Your task to perform on an android device: Search for the new nike air max 270 on Nike.com Image 0: 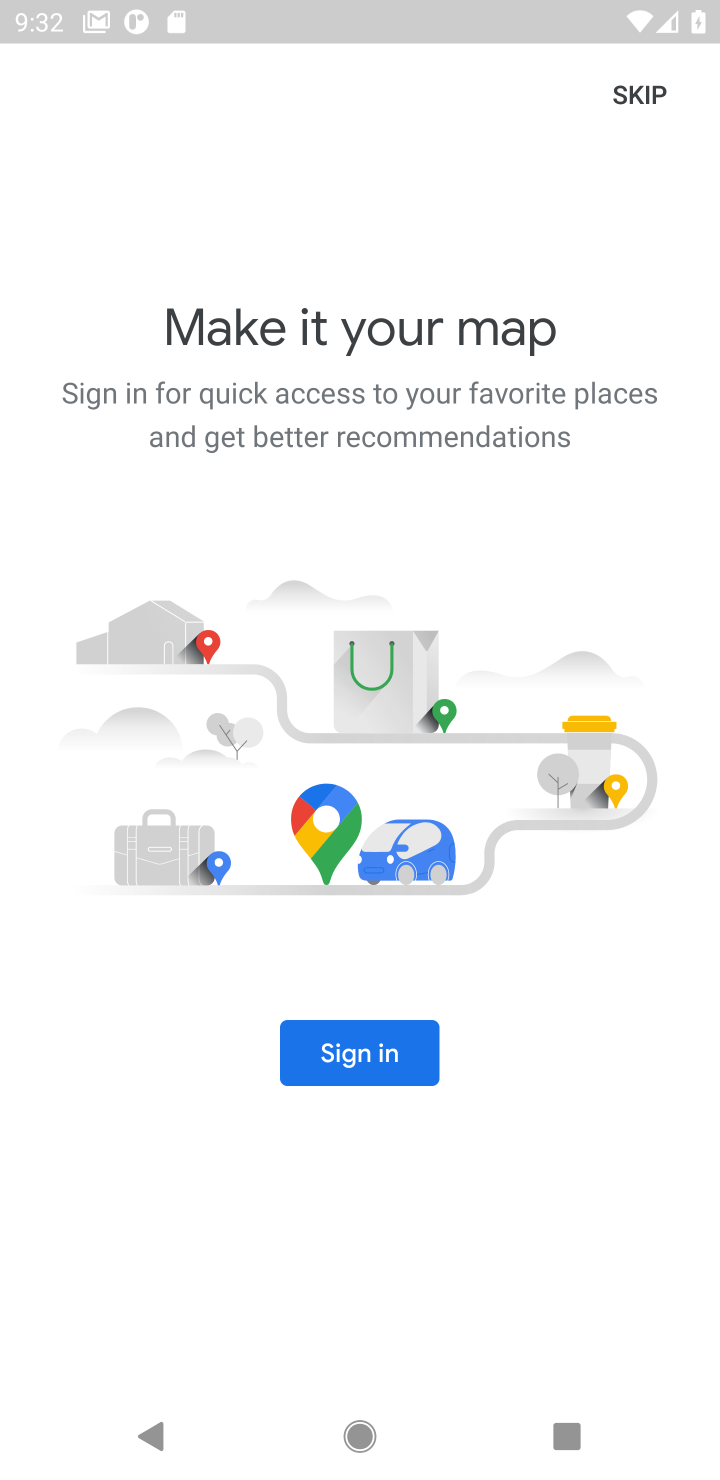
Step 0: press home button
Your task to perform on an android device: Search for the new nike air max 270 on Nike.com Image 1: 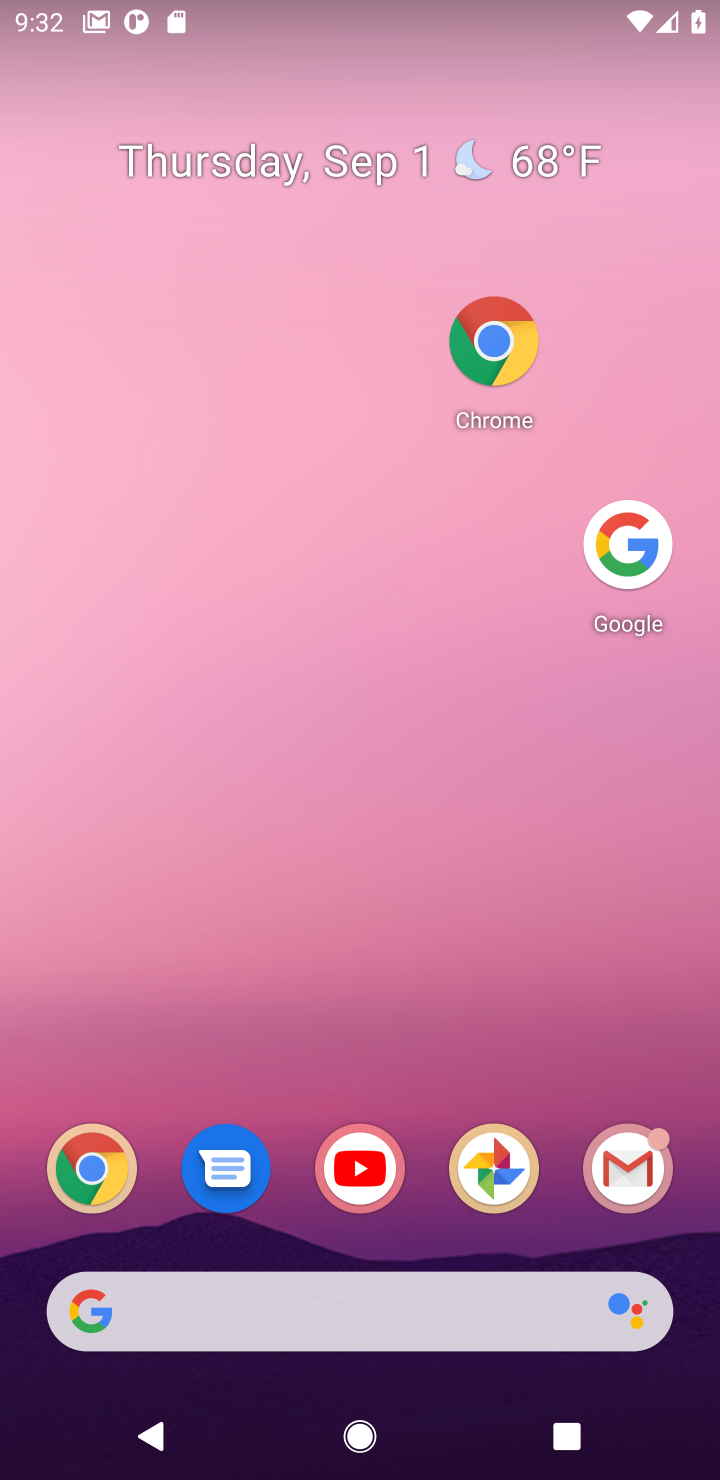
Step 1: drag from (337, 857) to (376, 440)
Your task to perform on an android device: Search for the new nike air max 270 on Nike.com Image 2: 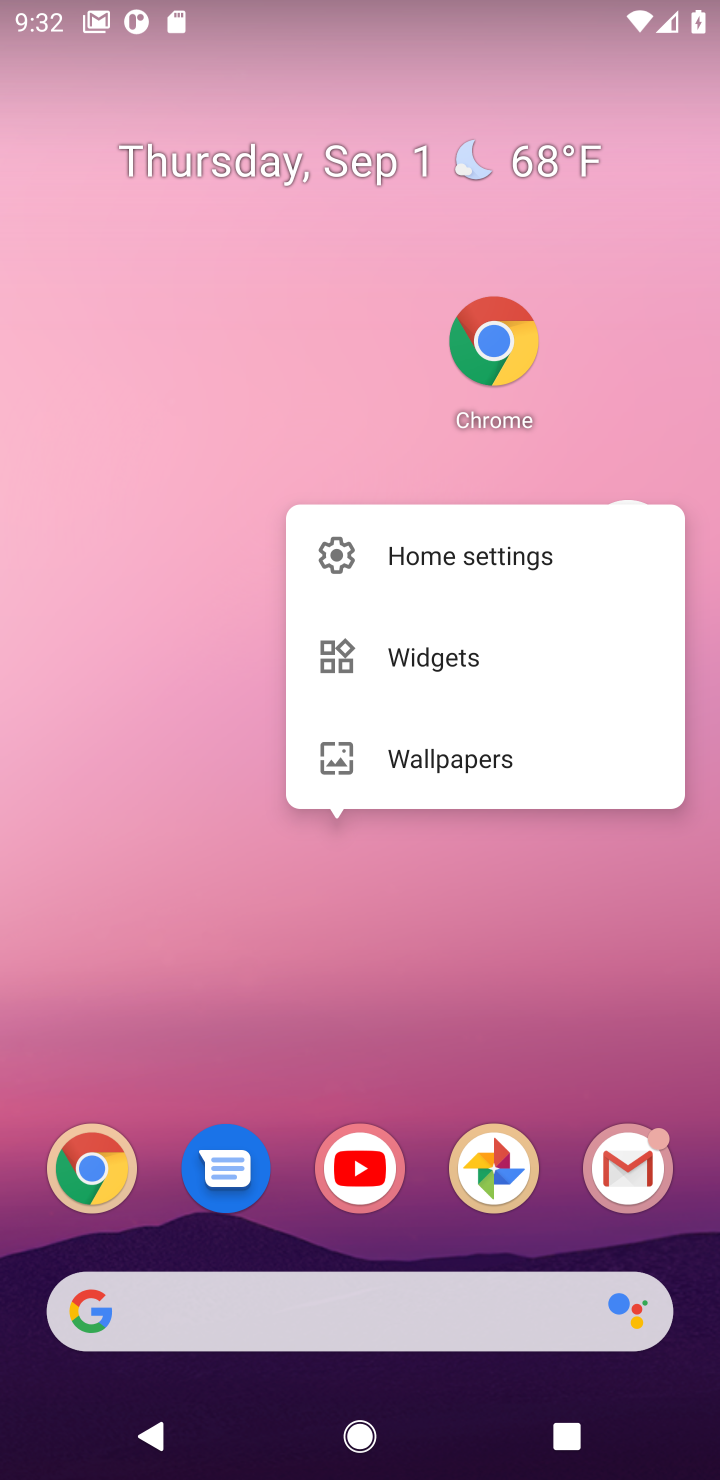
Step 2: click (6, 819)
Your task to perform on an android device: Search for the new nike air max 270 on Nike.com Image 3: 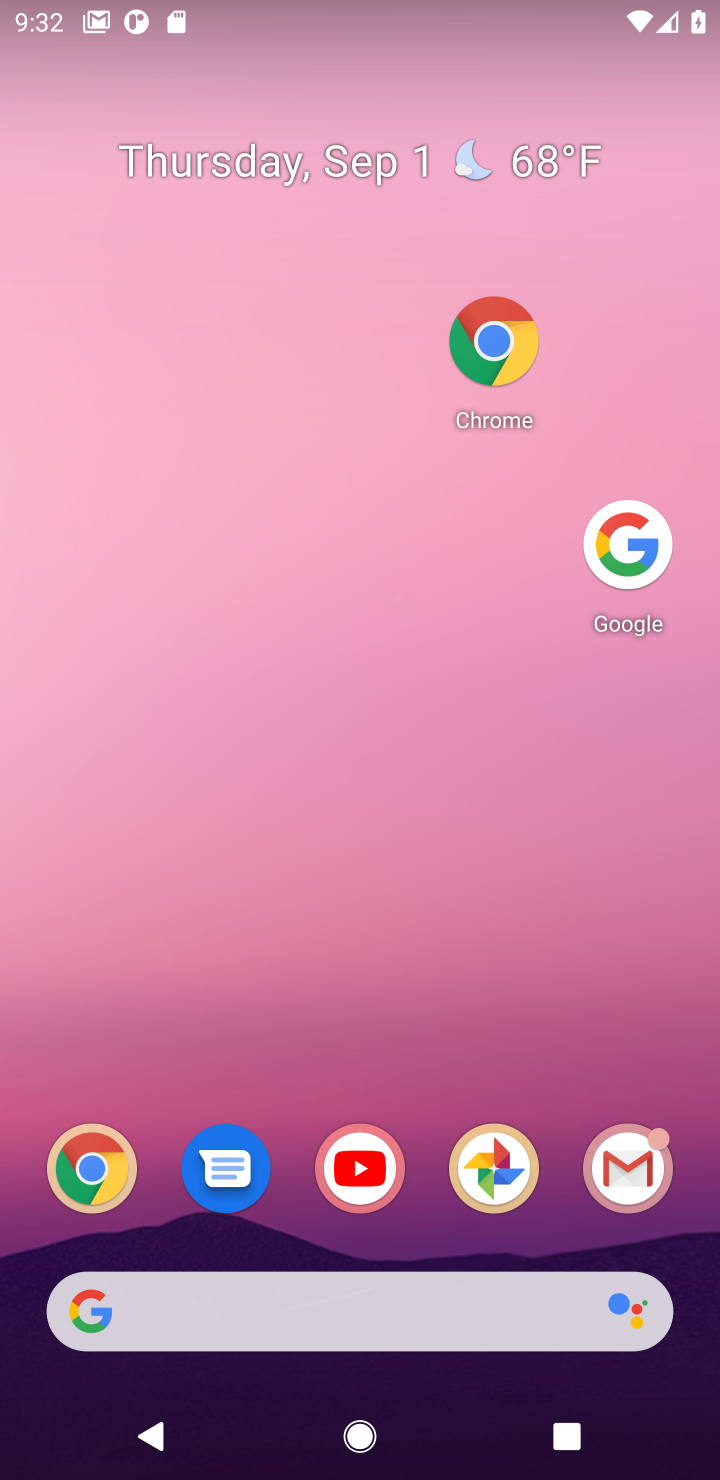
Step 3: drag from (283, 747) to (283, 346)
Your task to perform on an android device: Search for the new nike air max 270 on Nike.com Image 4: 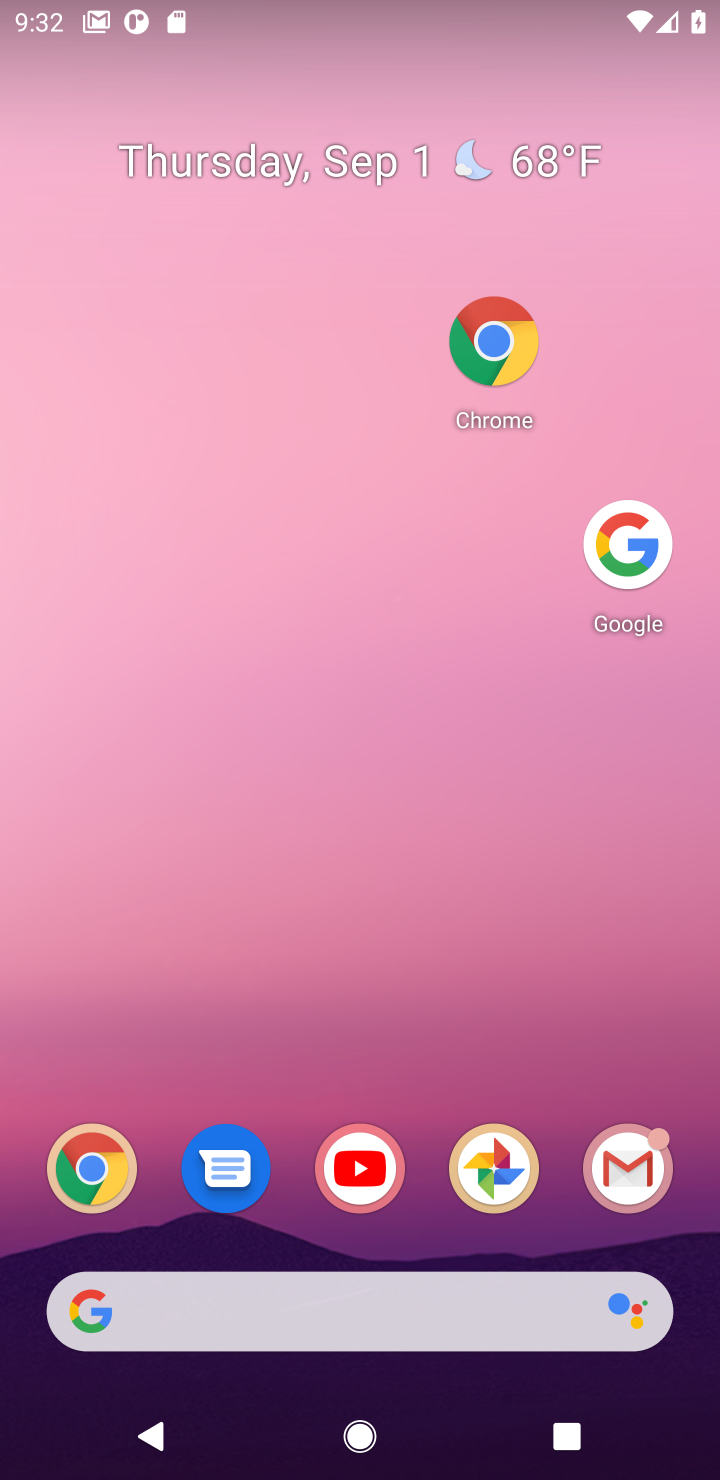
Step 4: drag from (393, 1059) to (436, 412)
Your task to perform on an android device: Search for the new nike air max 270 on Nike.com Image 5: 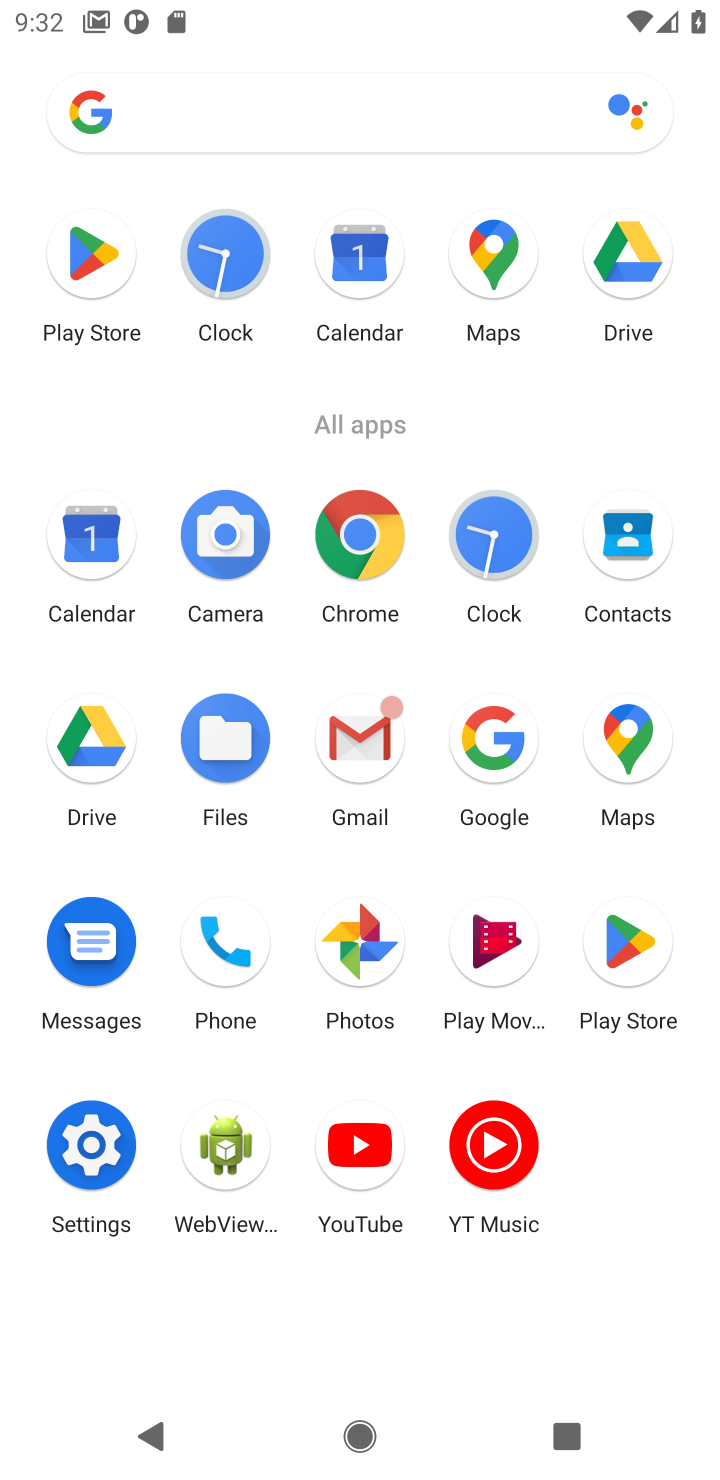
Step 5: click (494, 726)
Your task to perform on an android device: Search for the new nike air max 270 on Nike.com Image 6: 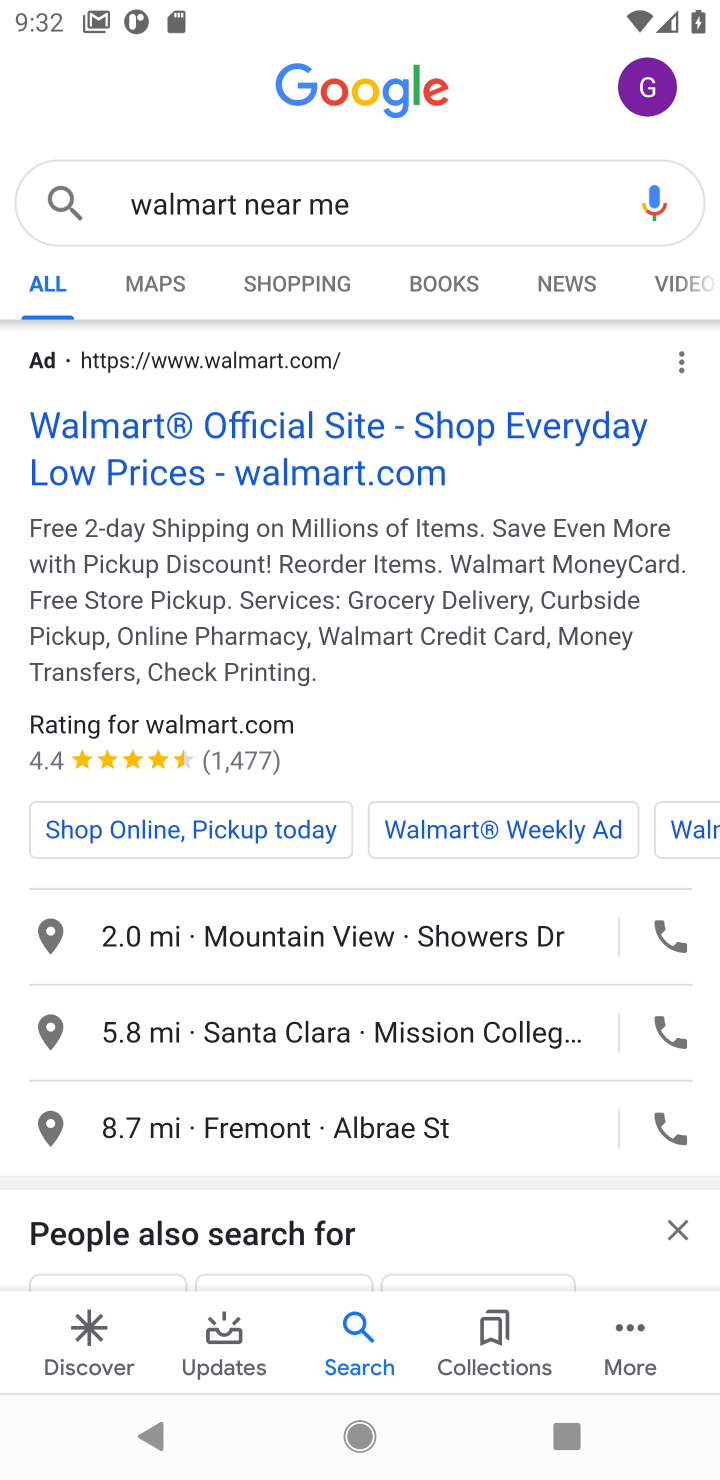
Step 6: click (389, 196)
Your task to perform on an android device: Search for the new nike air max 270 on Nike.com Image 7: 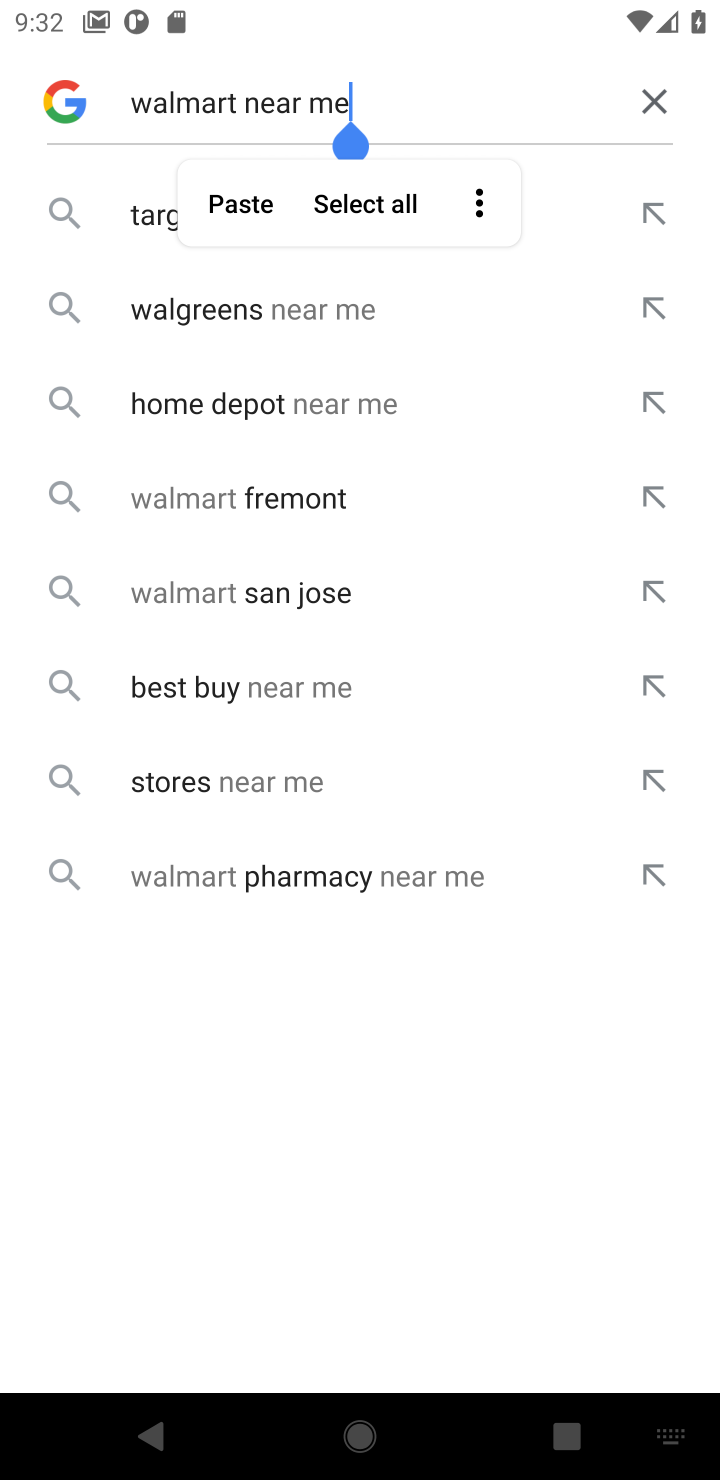
Step 7: click (652, 102)
Your task to perform on an android device: Search for the new nike air max 270 on Nike.com Image 8: 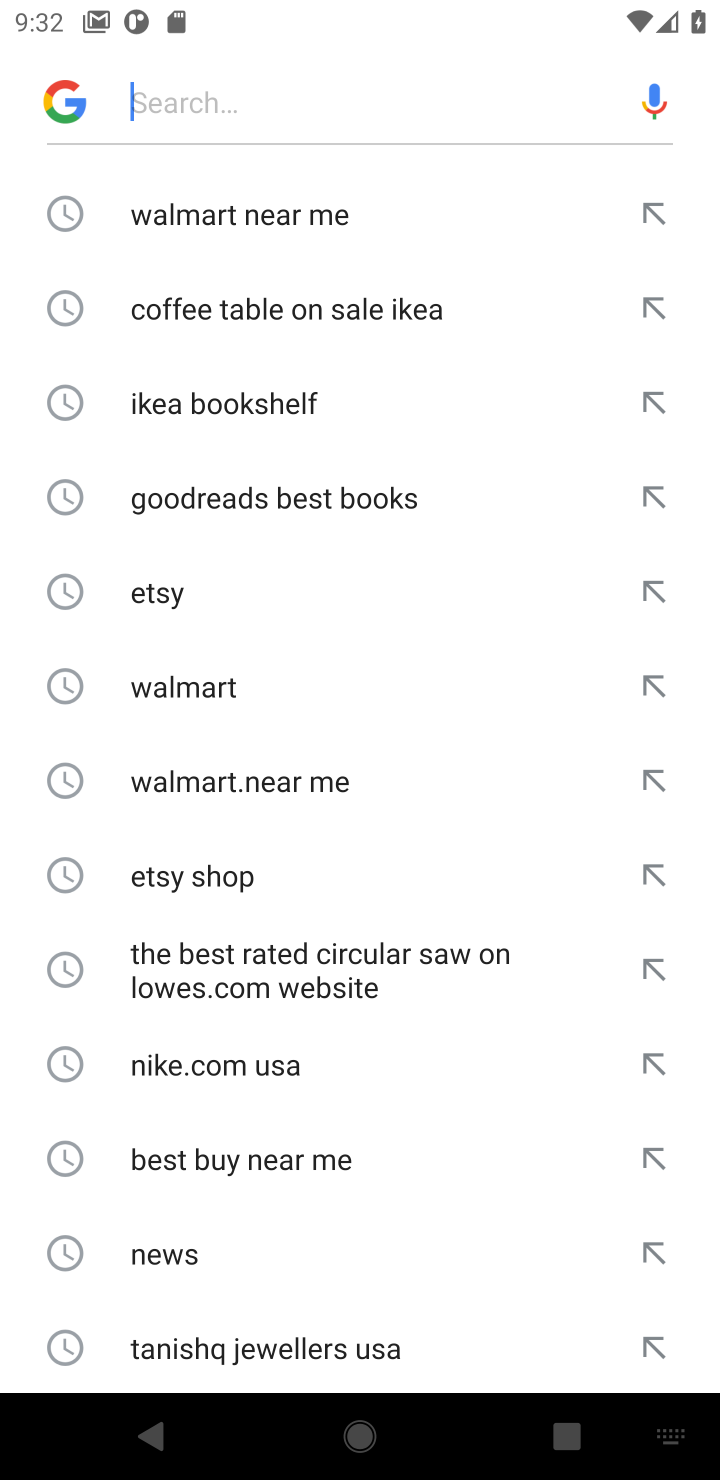
Step 8: click (307, 67)
Your task to perform on an android device: Search for the new nike air max 270 on Nike.com Image 9: 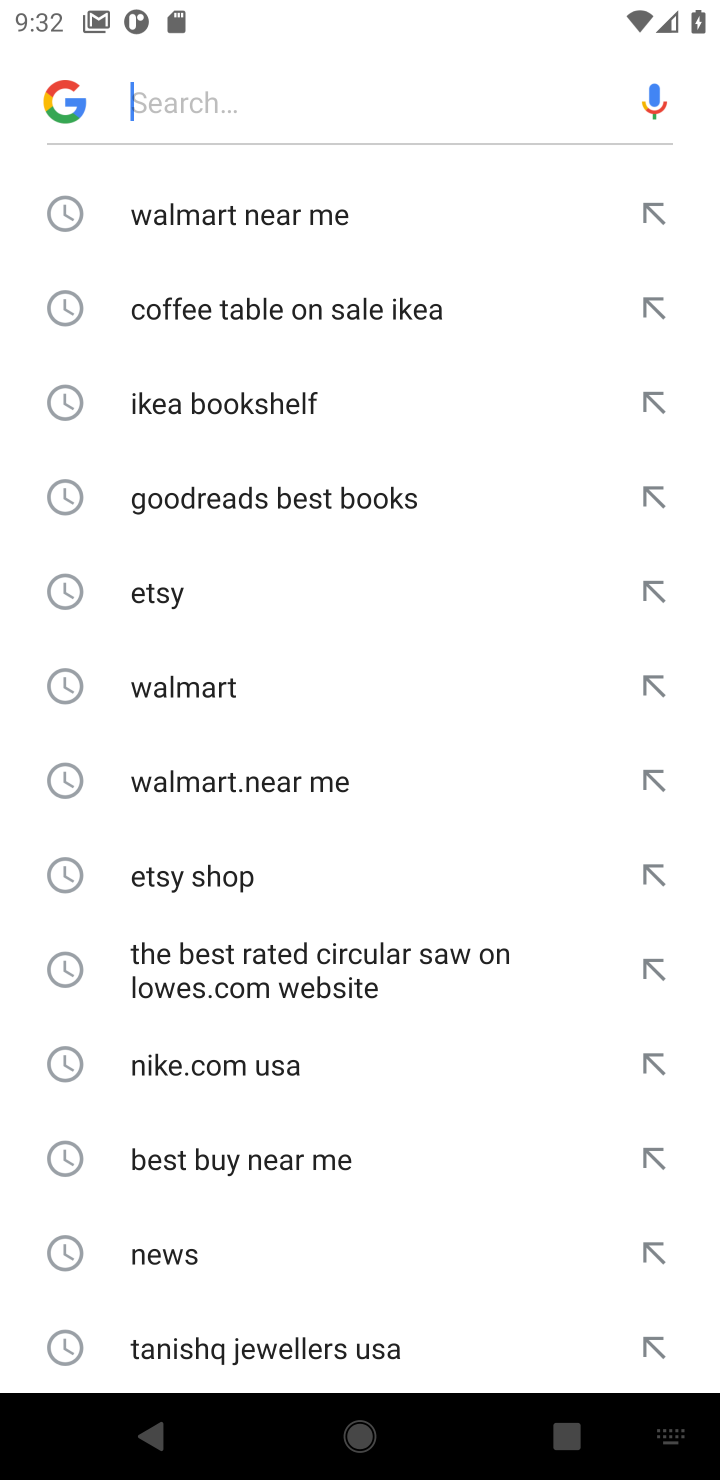
Step 9: type "Nike.com  "
Your task to perform on an android device: Search for the new nike air max 270 on Nike.com Image 10: 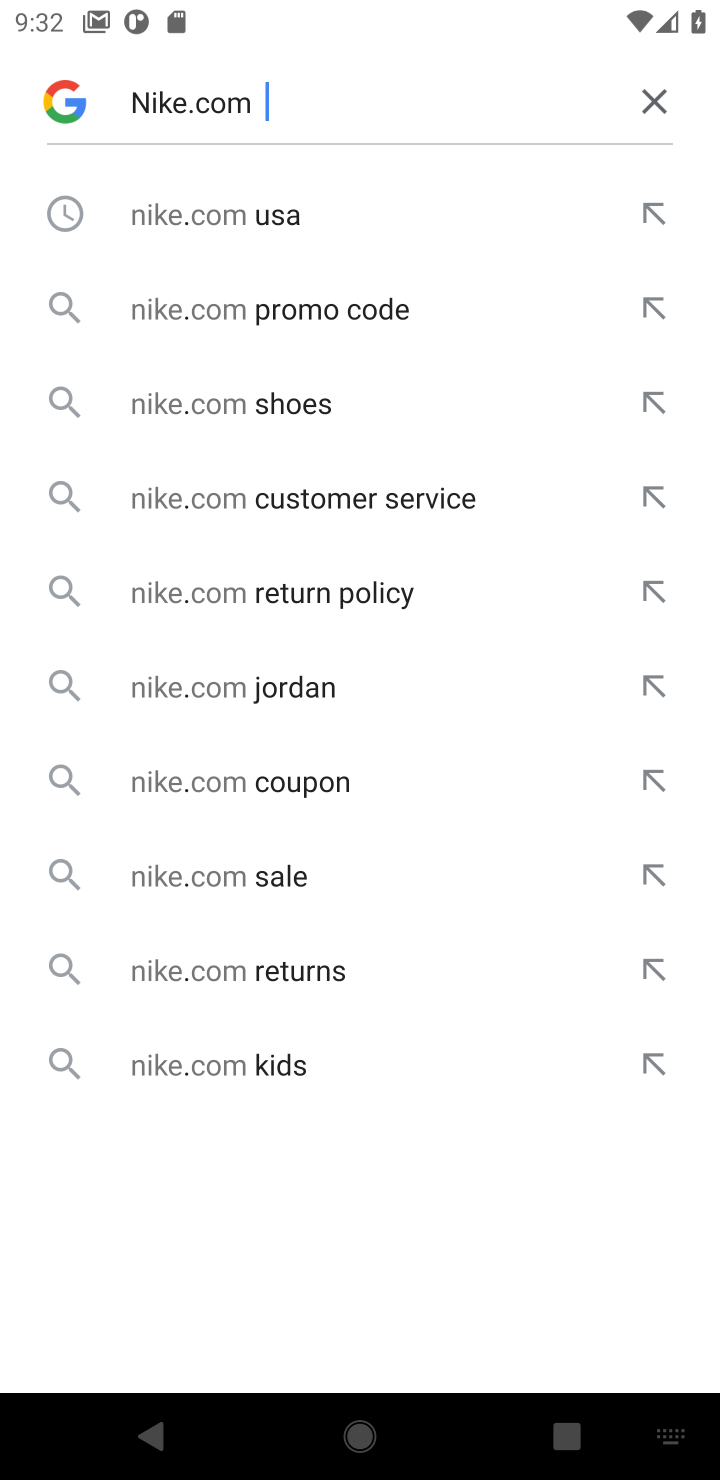
Step 10: click (261, 412)
Your task to perform on an android device: Search for the new nike air max 270 on Nike.com Image 11: 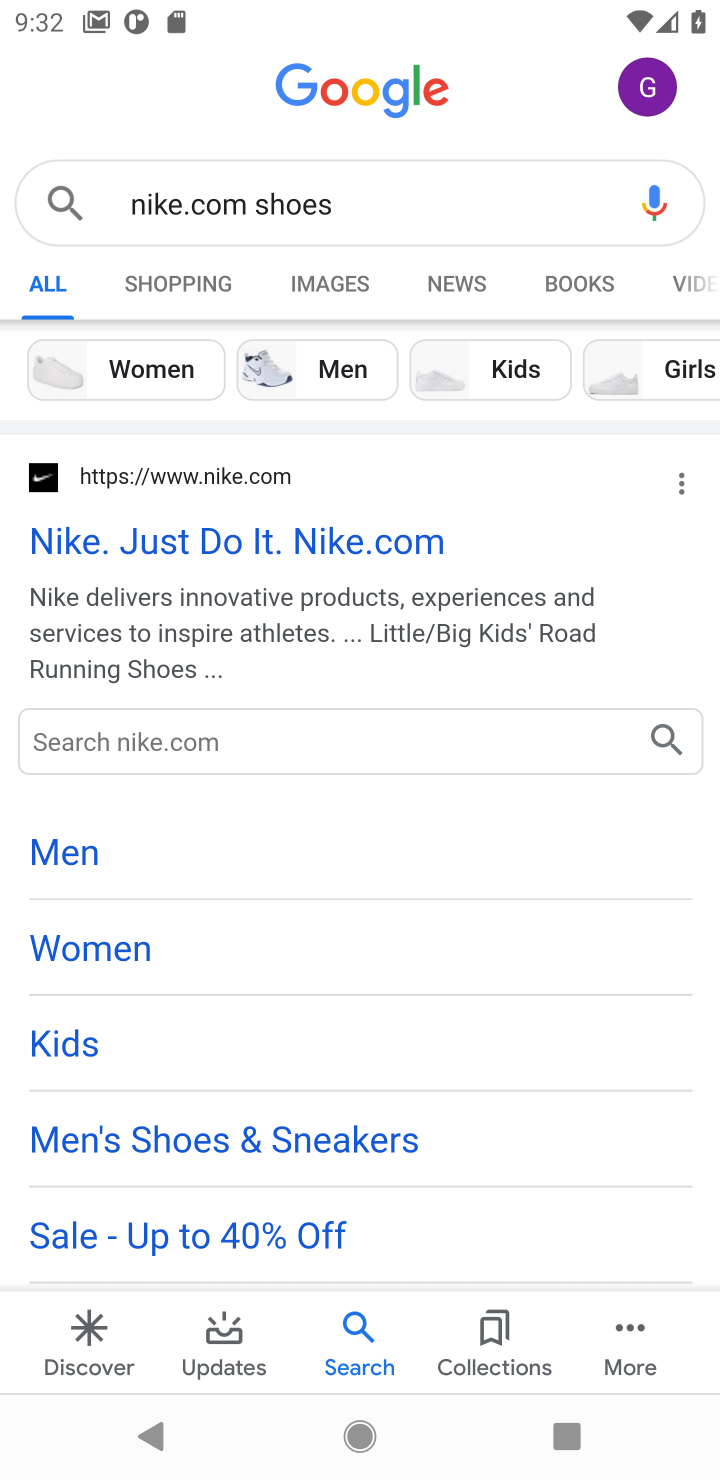
Step 11: drag from (247, 1112) to (406, 374)
Your task to perform on an android device: Search for the new nike air max 270 on Nike.com Image 12: 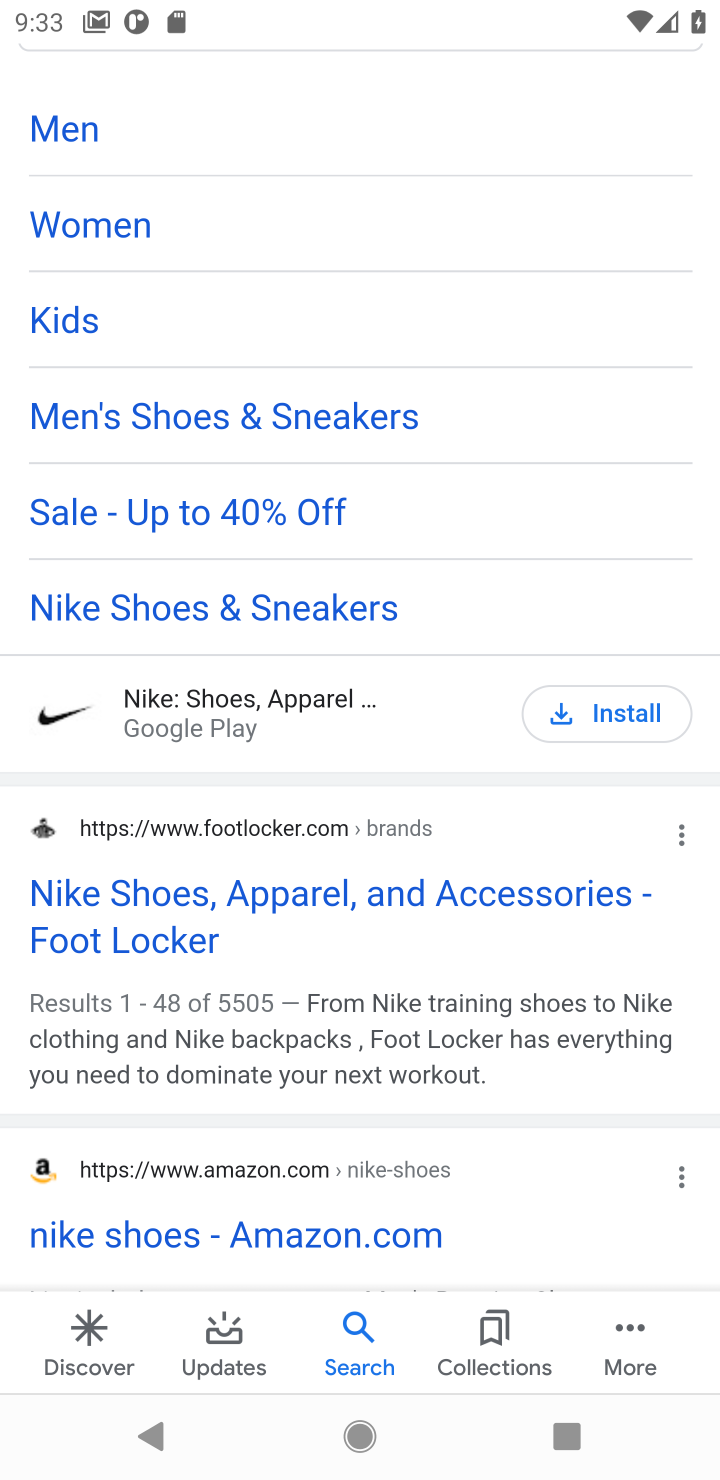
Step 12: drag from (179, 326) to (132, 1185)
Your task to perform on an android device: Search for the new nike air max 270 on Nike.com Image 13: 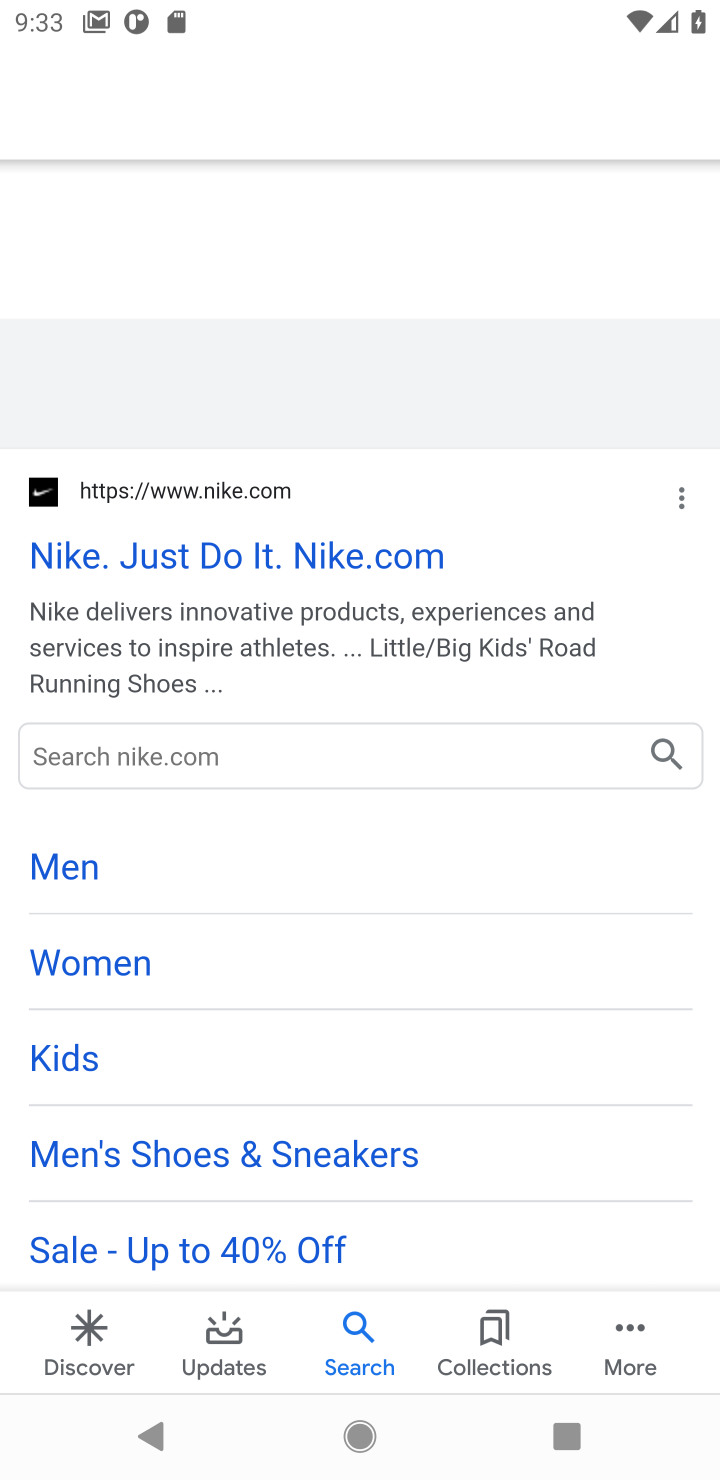
Step 13: drag from (162, 385) to (162, 667)
Your task to perform on an android device: Search for the new nike air max 270 on Nike.com Image 14: 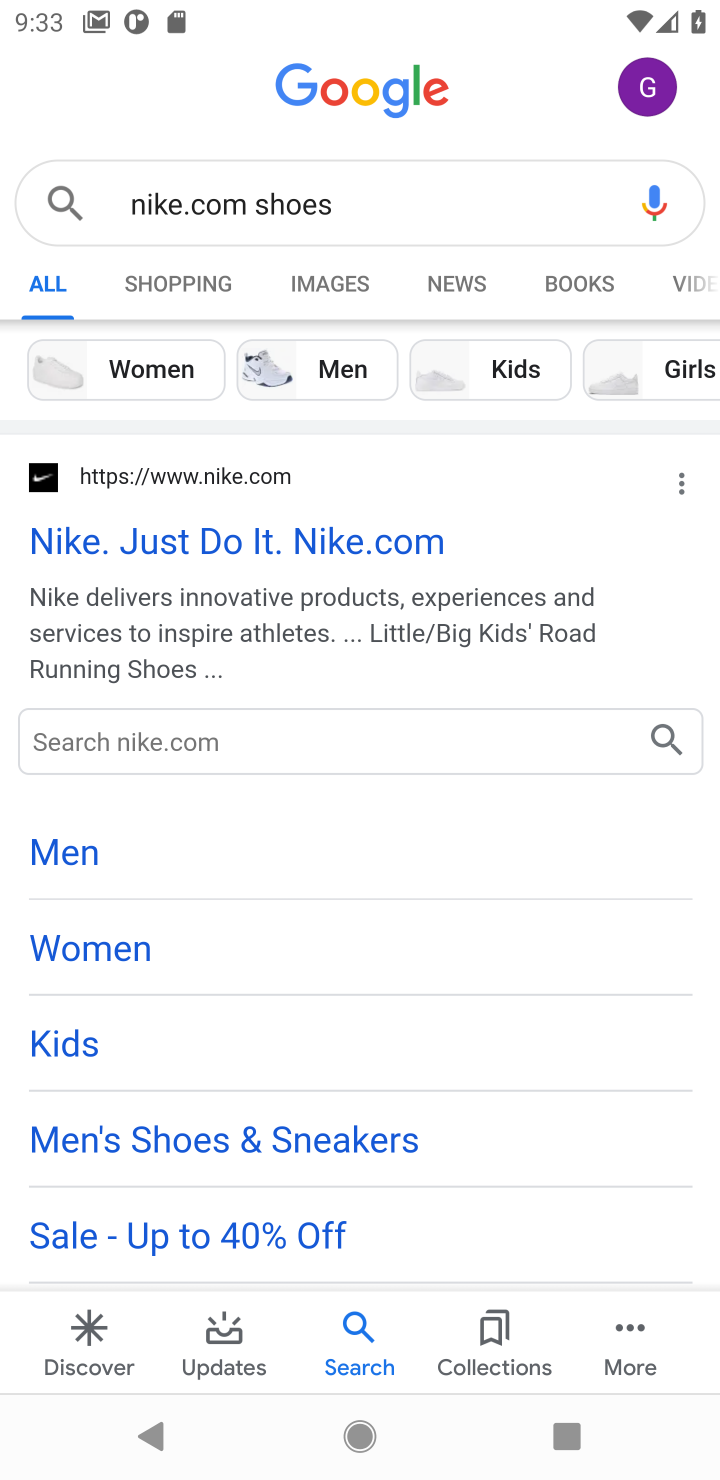
Step 14: click (258, 523)
Your task to perform on an android device: Search for the new nike air max 270 on Nike.com Image 15: 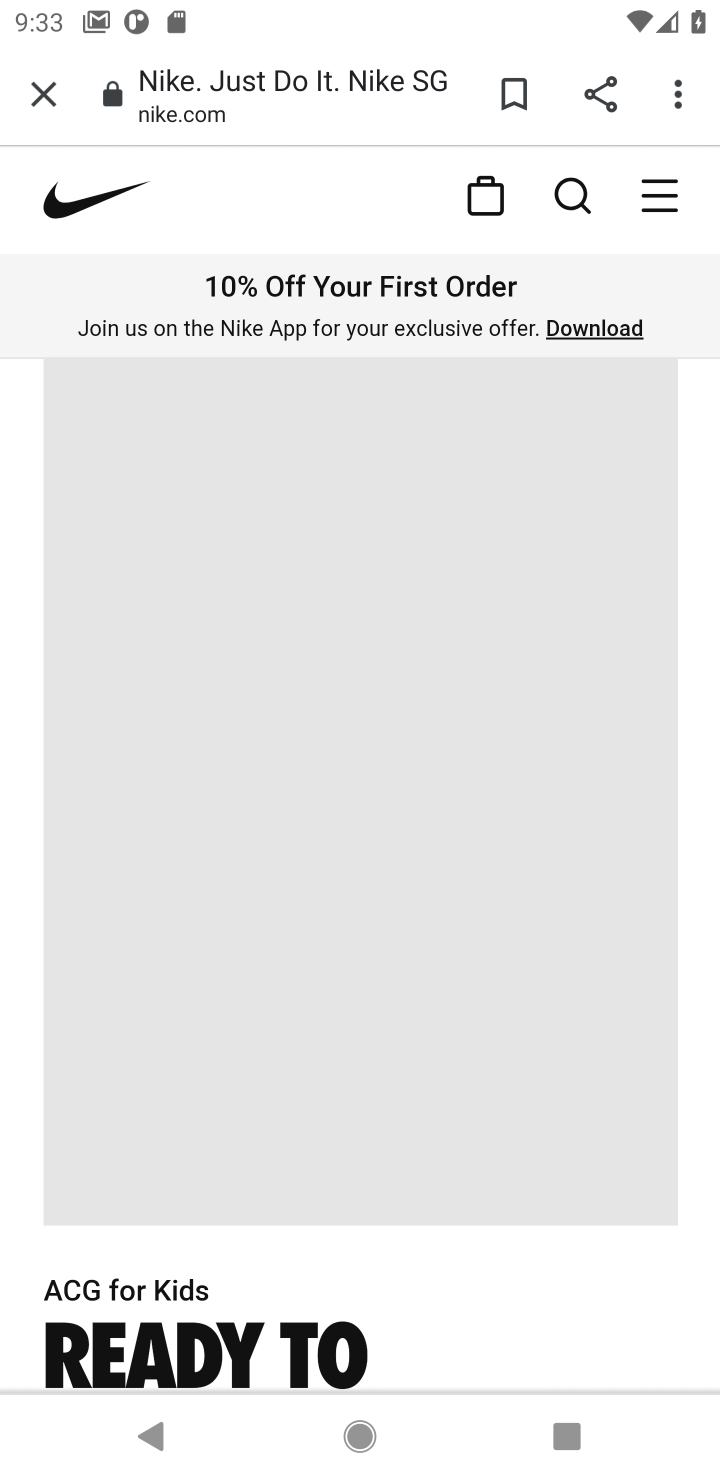
Step 15: click (558, 196)
Your task to perform on an android device: Search for the new nike air max 270 on Nike.com Image 16: 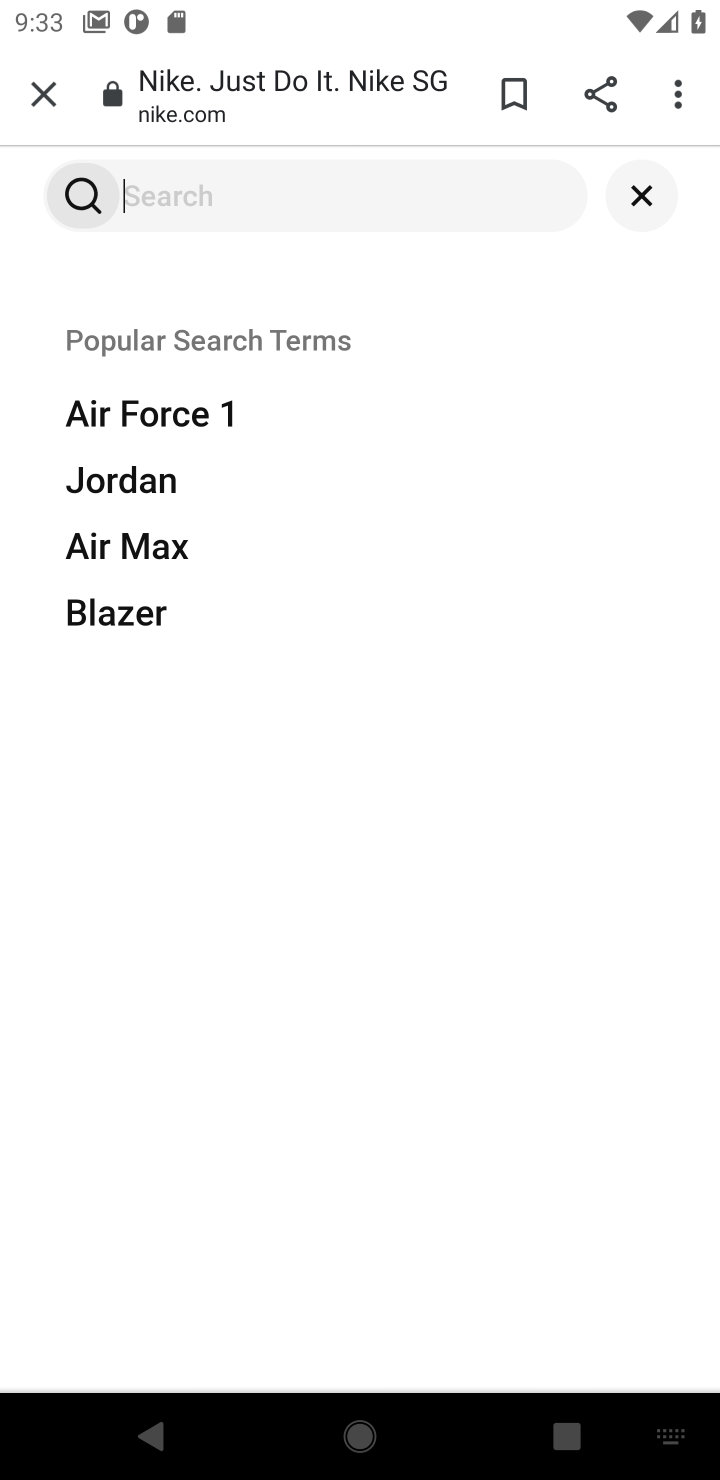
Step 16: click (329, 178)
Your task to perform on an android device: Search for the new nike air max 270 on Nike.com Image 17: 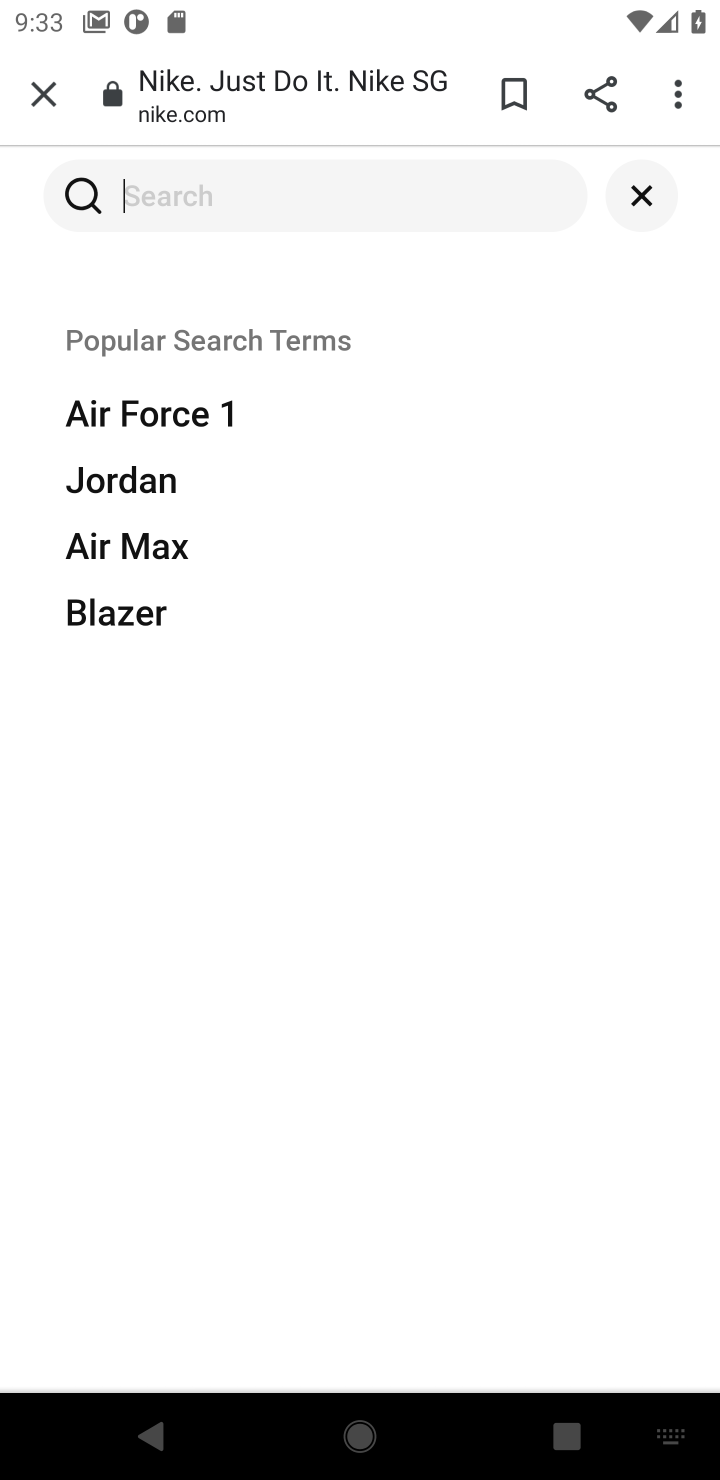
Step 17: type " the new nike air max 270  "
Your task to perform on an android device: Search for the new nike air max 270 on Nike.com Image 18: 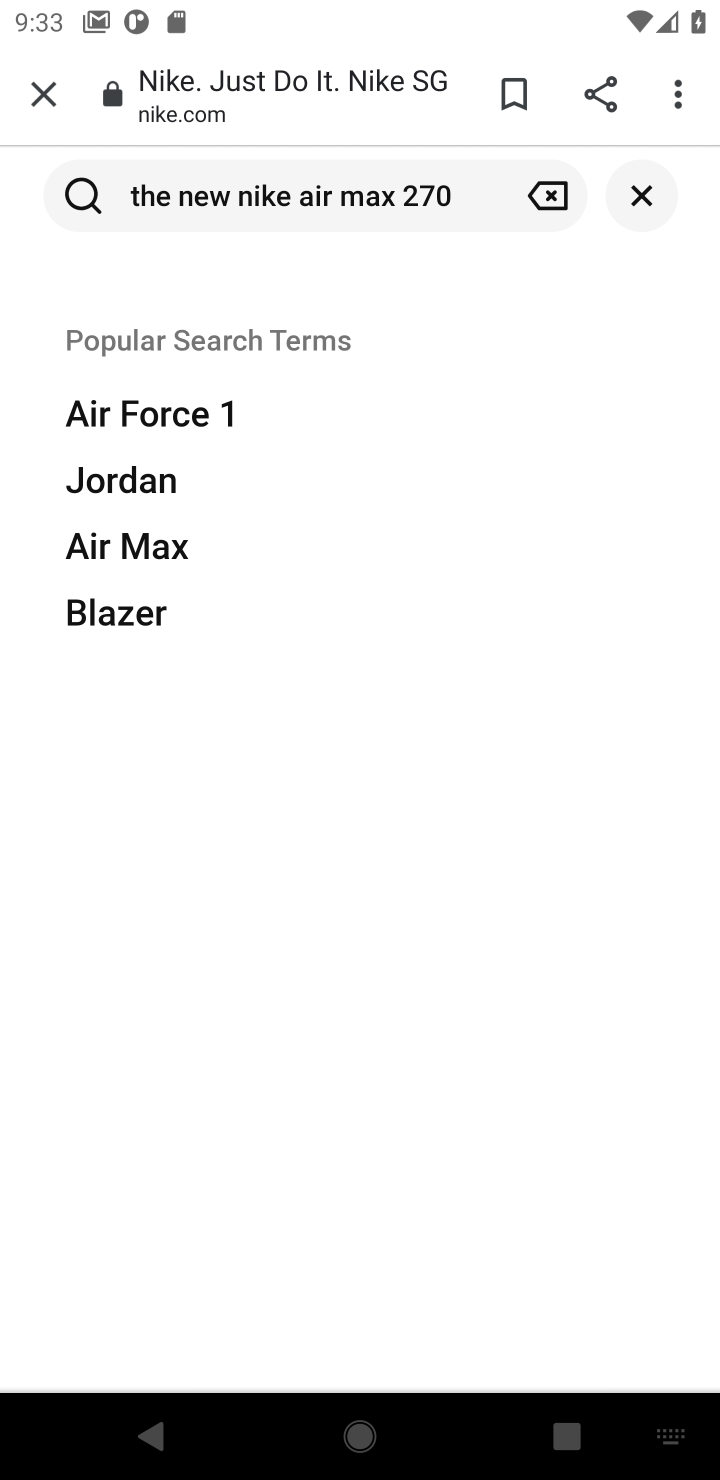
Step 18: click (114, 535)
Your task to perform on an android device: Search for the new nike air max 270 on Nike.com Image 19: 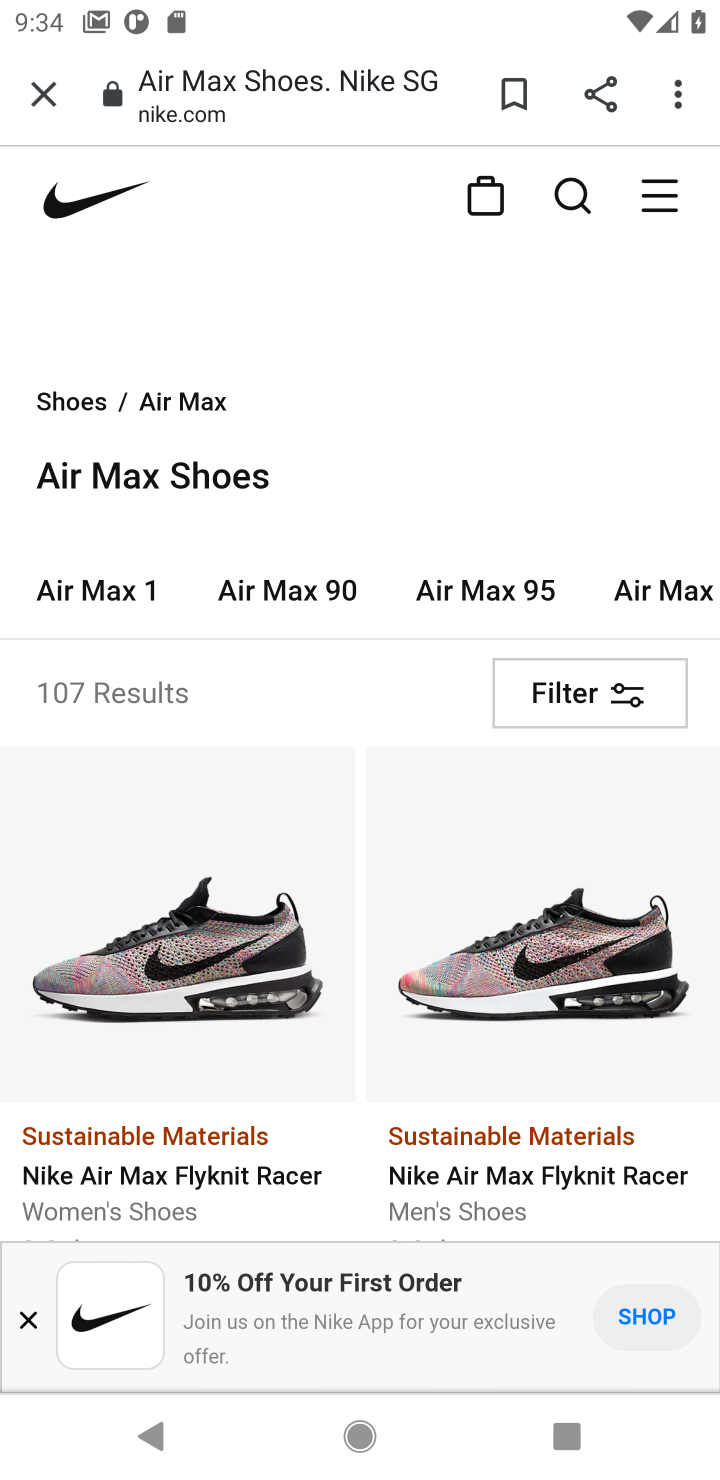
Step 19: click (15, 1317)
Your task to perform on an android device: Search for the new nike air max 270 on Nike.com Image 20: 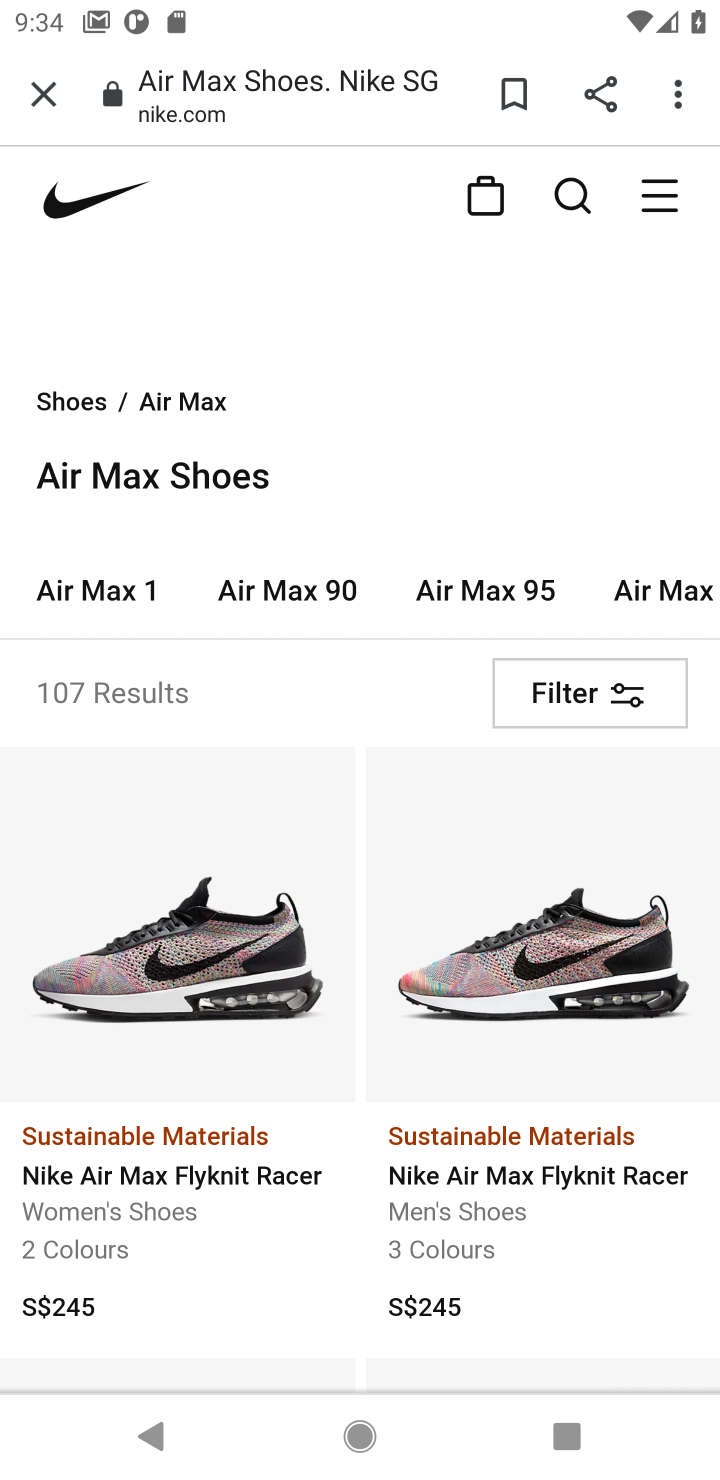
Step 20: drag from (248, 1247) to (352, 361)
Your task to perform on an android device: Search for the new nike air max 270 on Nike.com Image 21: 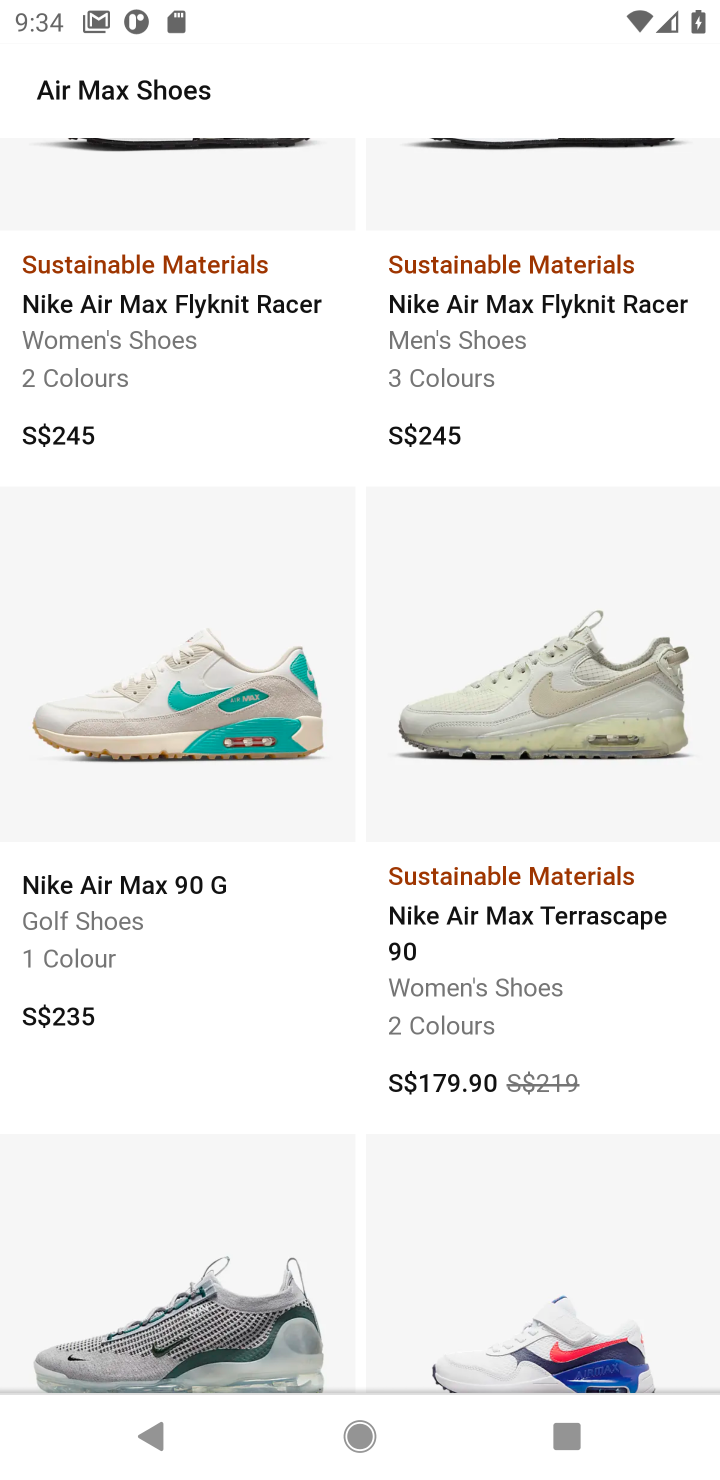
Step 21: drag from (213, 439) to (160, 1292)
Your task to perform on an android device: Search for the new nike air max 270 on Nike.com Image 22: 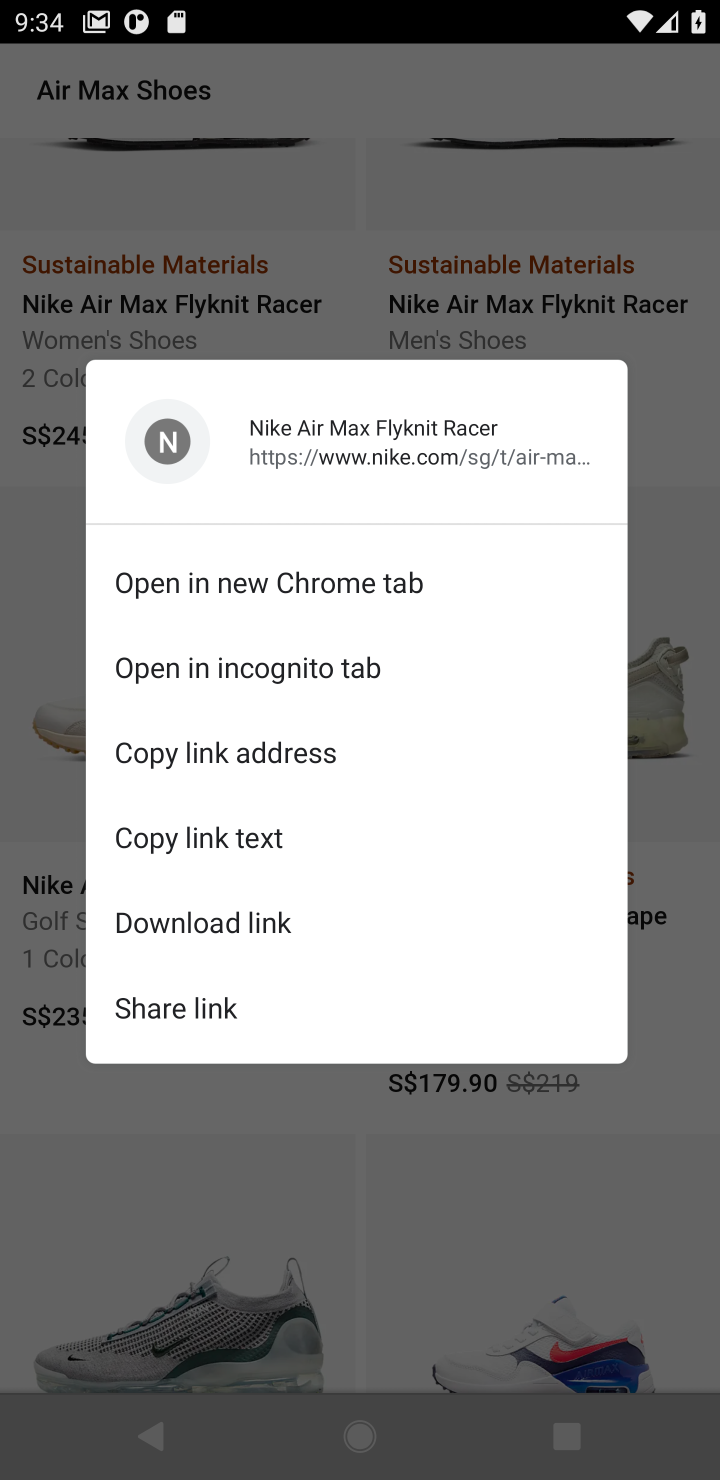
Step 22: click (159, 1080)
Your task to perform on an android device: Search for the new nike air max 270 on Nike.com Image 23: 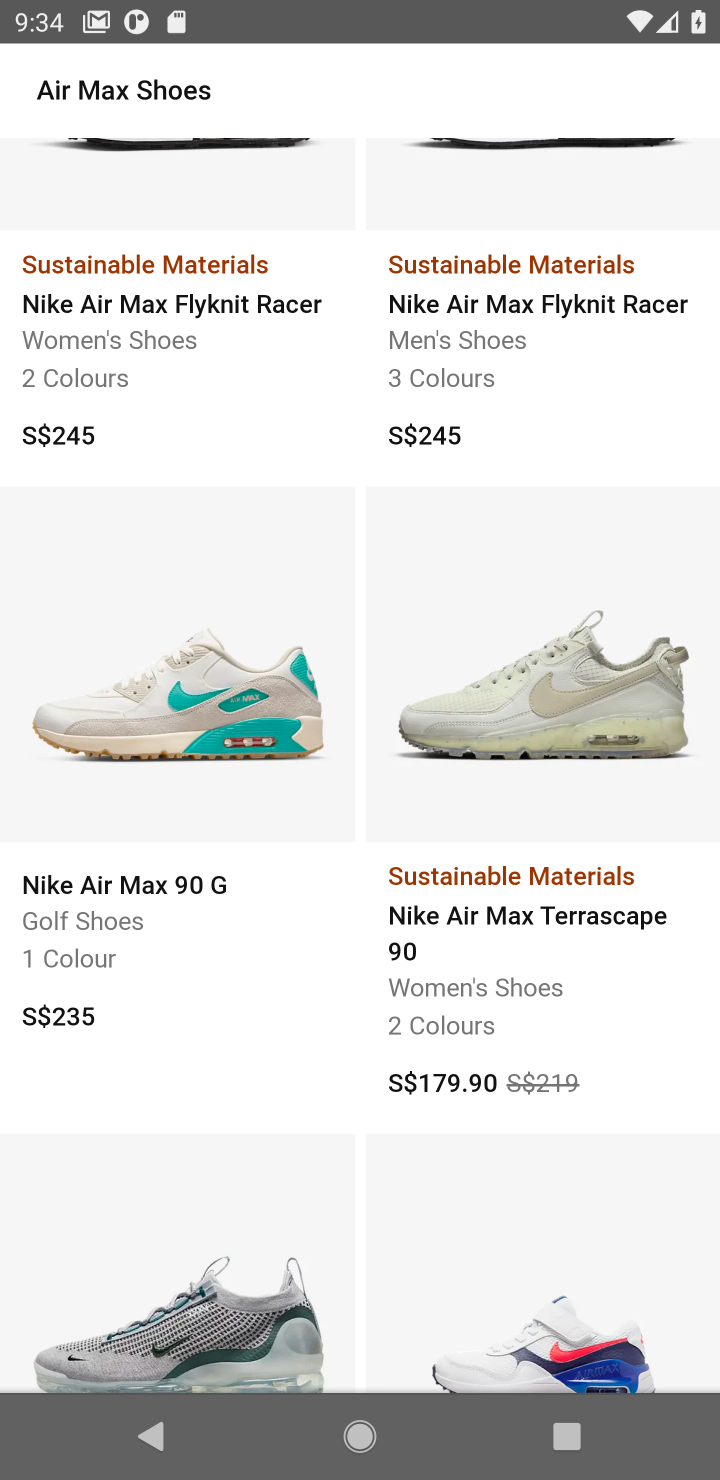
Step 23: task complete